Your task to perform on an android device: turn off javascript in the chrome app Image 0: 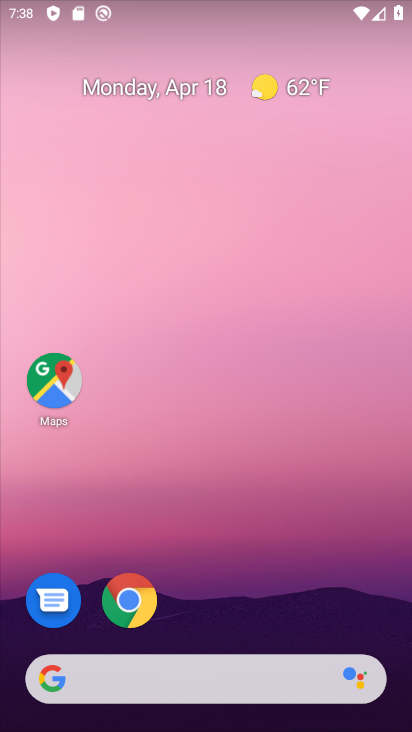
Step 0: drag from (201, 584) to (0, 467)
Your task to perform on an android device: turn off javascript in the chrome app Image 1: 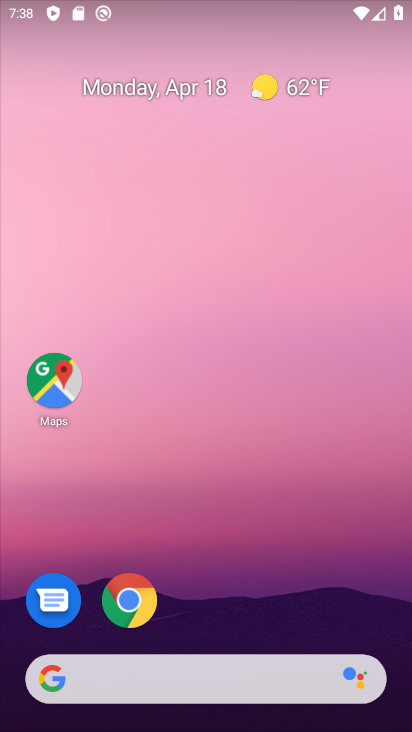
Step 1: click (136, 602)
Your task to perform on an android device: turn off javascript in the chrome app Image 2: 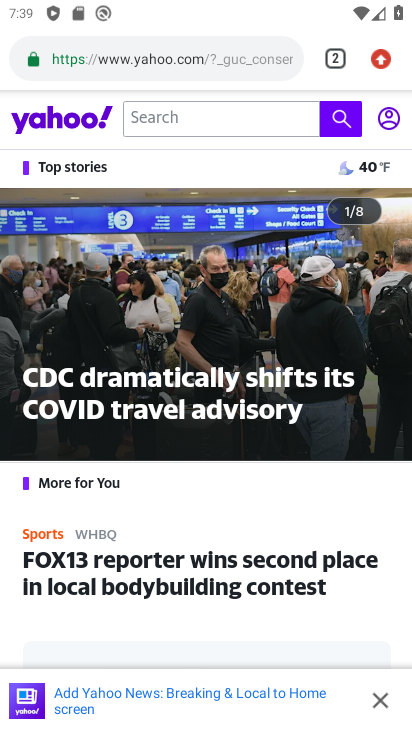
Step 2: click (381, 59)
Your task to perform on an android device: turn off javascript in the chrome app Image 3: 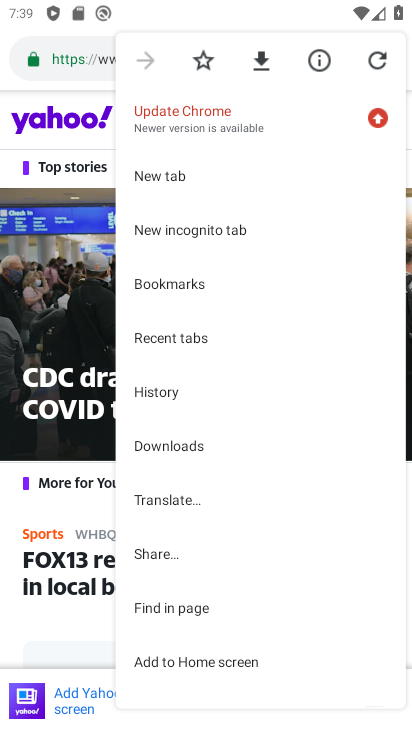
Step 3: drag from (215, 615) to (192, 254)
Your task to perform on an android device: turn off javascript in the chrome app Image 4: 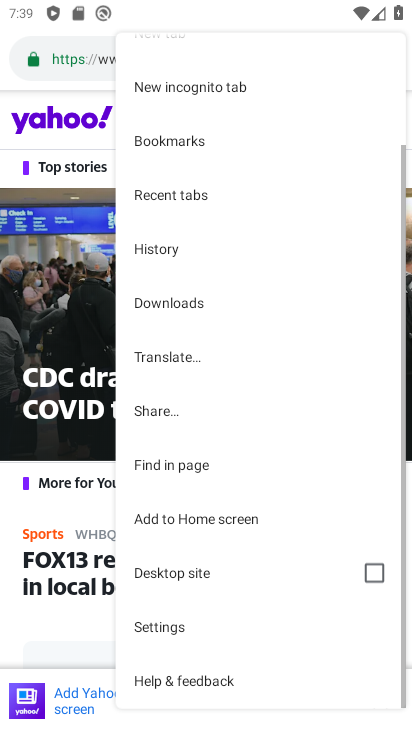
Step 4: click (172, 623)
Your task to perform on an android device: turn off javascript in the chrome app Image 5: 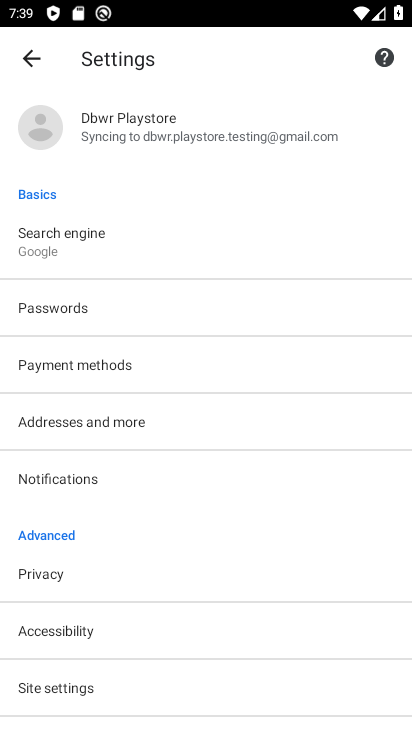
Step 5: click (59, 677)
Your task to perform on an android device: turn off javascript in the chrome app Image 6: 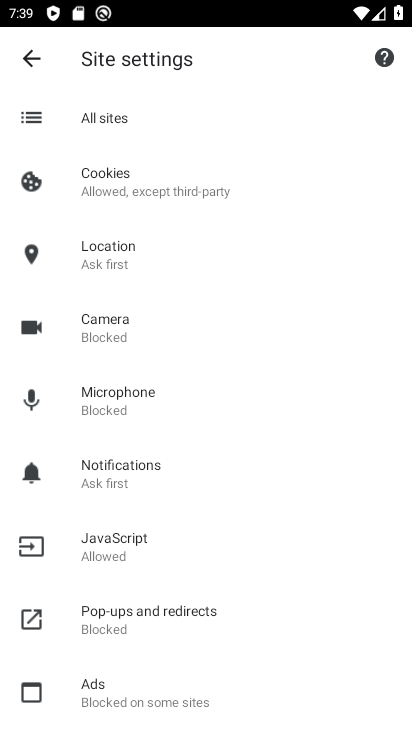
Step 6: click (125, 549)
Your task to perform on an android device: turn off javascript in the chrome app Image 7: 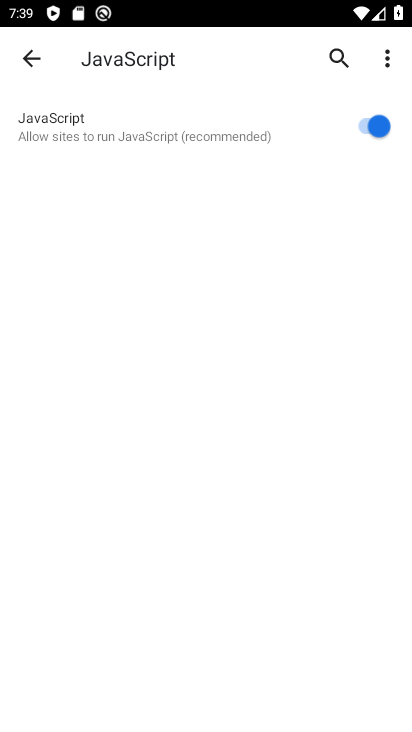
Step 7: click (360, 121)
Your task to perform on an android device: turn off javascript in the chrome app Image 8: 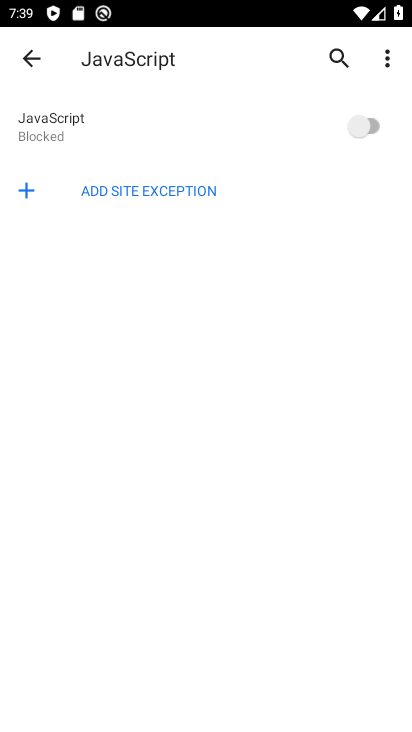
Step 8: task complete